Your task to perform on an android device: turn off notifications in google photos Image 0: 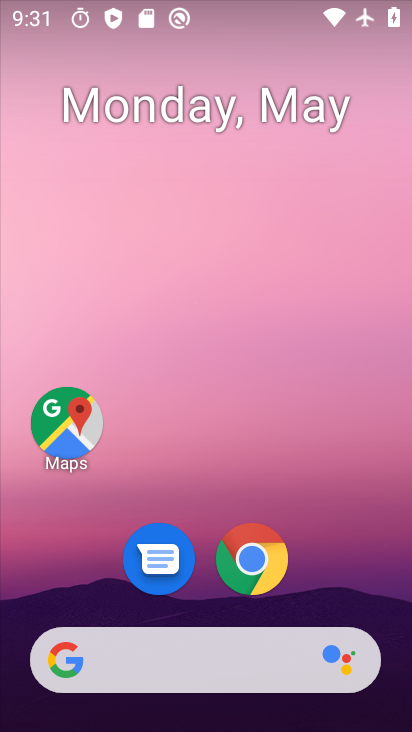
Step 0: drag from (356, 574) to (303, 83)
Your task to perform on an android device: turn off notifications in google photos Image 1: 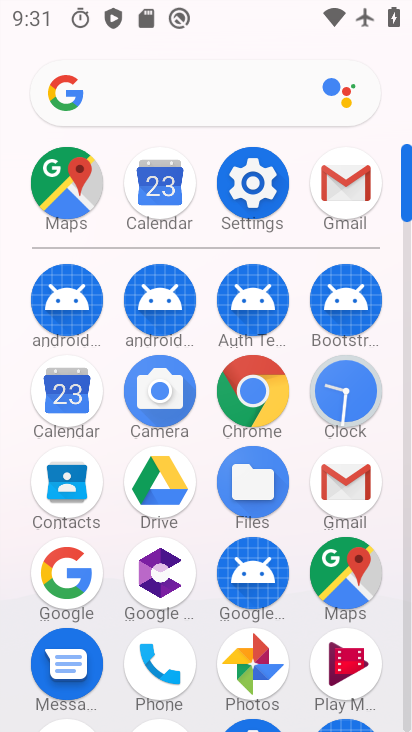
Step 1: click (247, 674)
Your task to perform on an android device: turn off notifications in google photos Image 2: 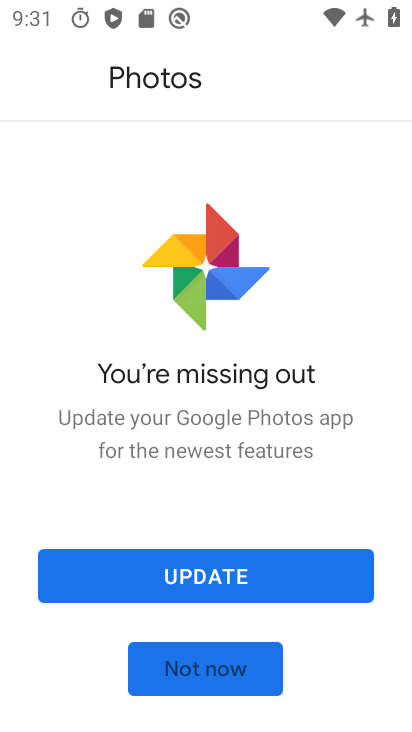
Step 2: click (200, 585)
Your task to perform on an android device: turn off notifications in google photos Image 3: 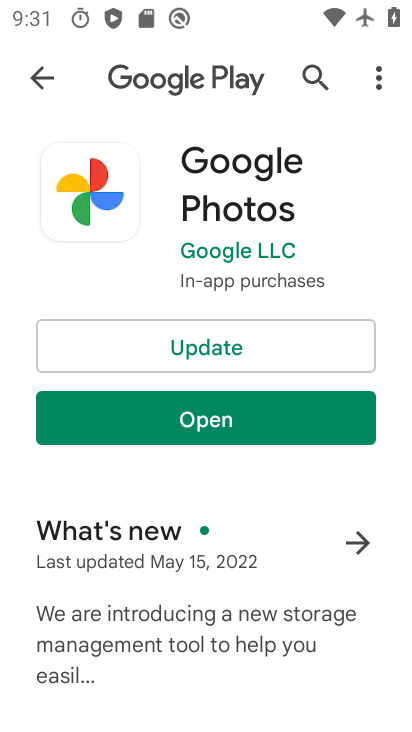
Step 3: click (195, 347)
Your task to perform on an android device: turn off notifications in google photos Image 4: 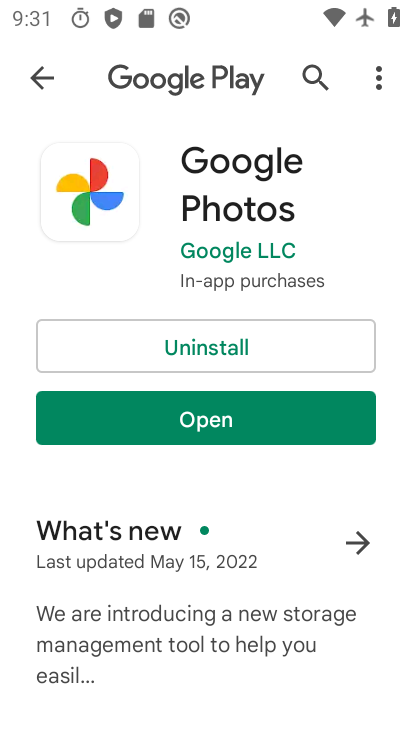
Step 4: click (207, 415)
Your task to perform on an android device: turn off notifications in google photos Image 5: 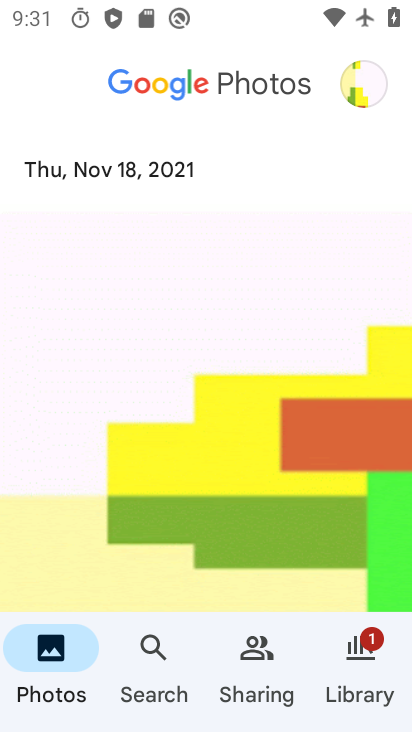
Step 5: click (377, 76)
Your task to perform on an android device: turn off notifications in google photos Image 6: 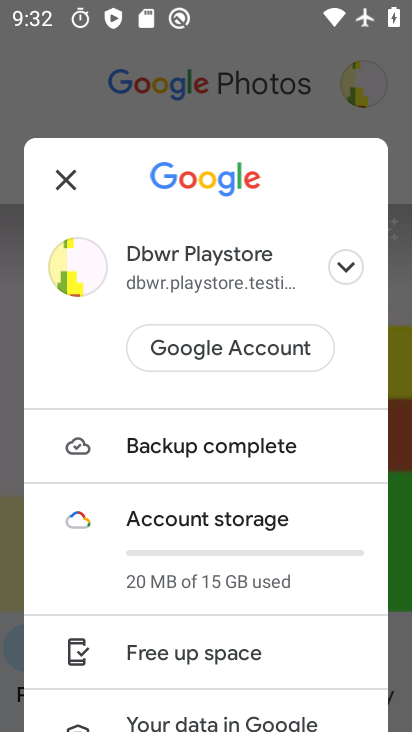
Step 6: drag from (194, 686) to (194, 454)
Your task to perform on an android device: turn off notifications in google photos Image 7: 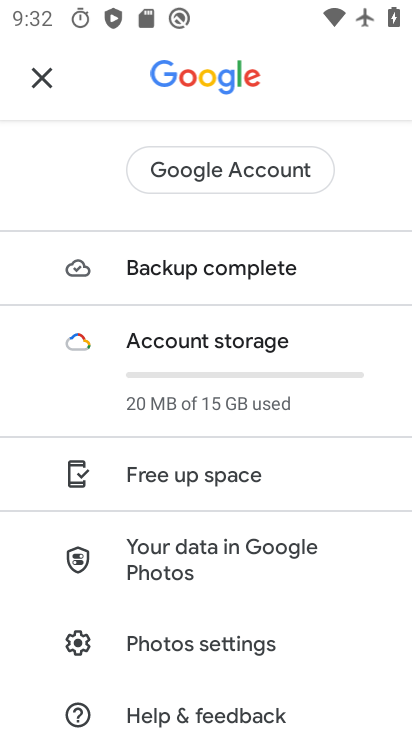
Step 7: click (177, 653)
Your task to perform on an android device: turn off notifications in google photos Image 8: 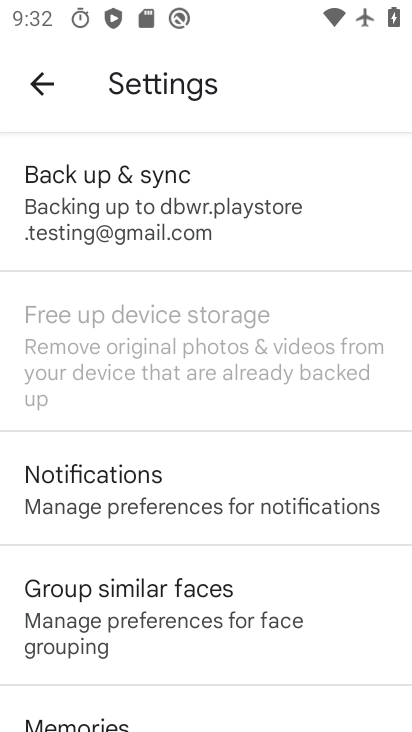
Step 8: click (162, 514)
Your task to perform on an android device: turn off notifications in google photos Image 9: 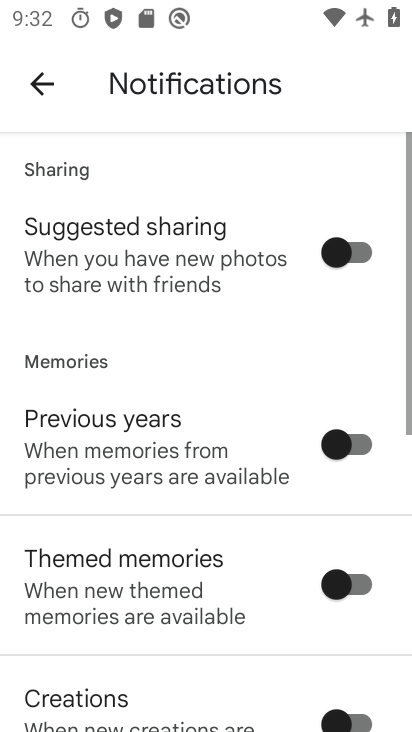
Step 9: drag from (195, 656) to (186, 171)
Your task to perform on an android device: turn off notifications in google photos Image 10: 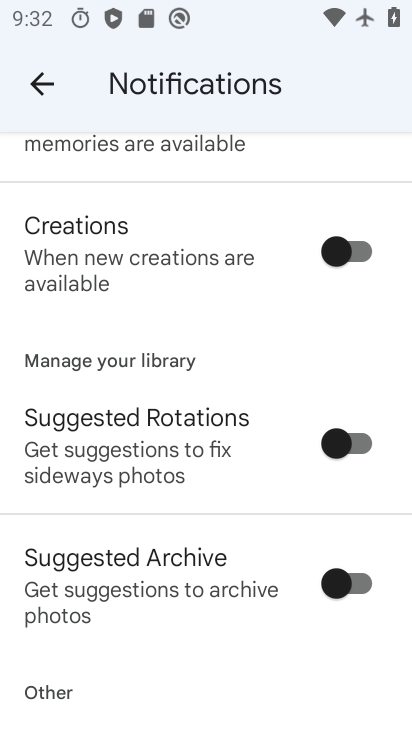
Step 10: drag from (186, 489) to (189, 178)
Your task to perform on an android device: turn off notifications in google photos Image 11: 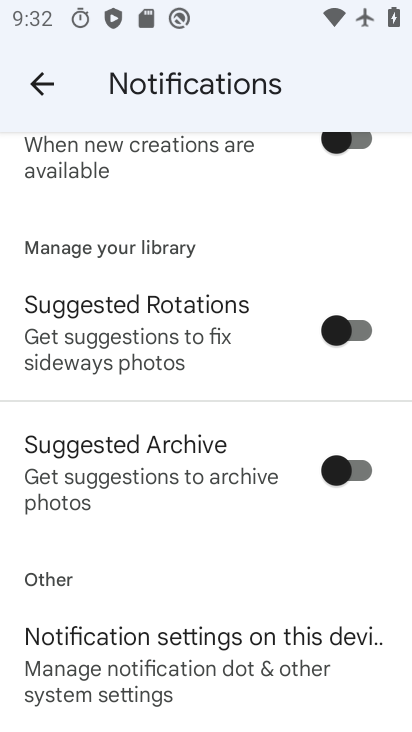
Step 11: click (164, 646)
Your task to perform on an android device: turn off notifications in google photos Image 12: 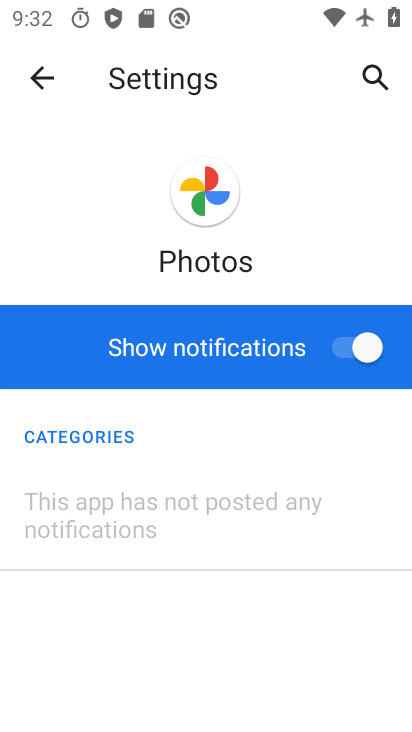
Step 12: click (342, 348)
Your task to perform on an android device: turn off notifications in google photos Image 13: 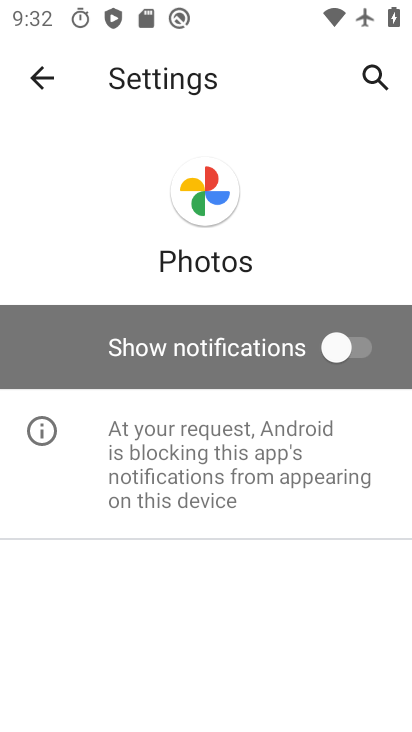
Step 13: task complete